Your task to perform on an android device: make emails show in primary in the gmail app Image 0: 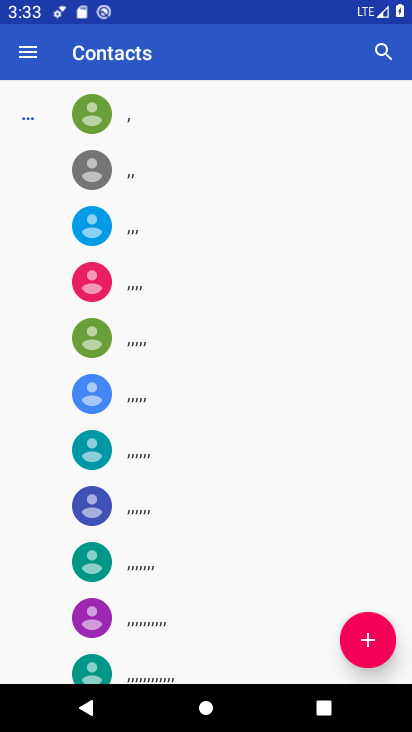
Step 0: press home button
Your task to perform on an android device: make emails show in primary in the gmail app Image 1: 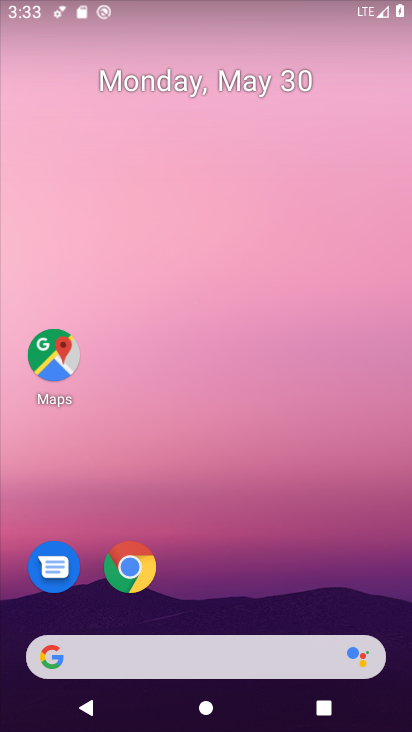
Step 1: drag from (264, 584) to (321, 3)
Your task to perform on an android device: make emails show in primary in the gmail app Image 2: 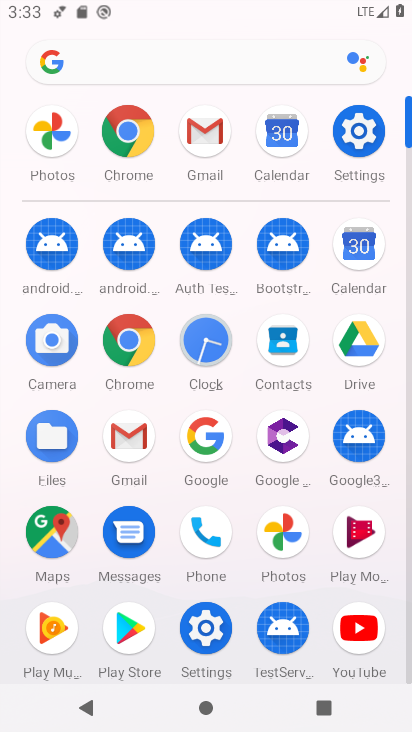
Step 2: click (125, 442)
Your task to perform on an android device: make emails show in primary in the gmail app Image 3: 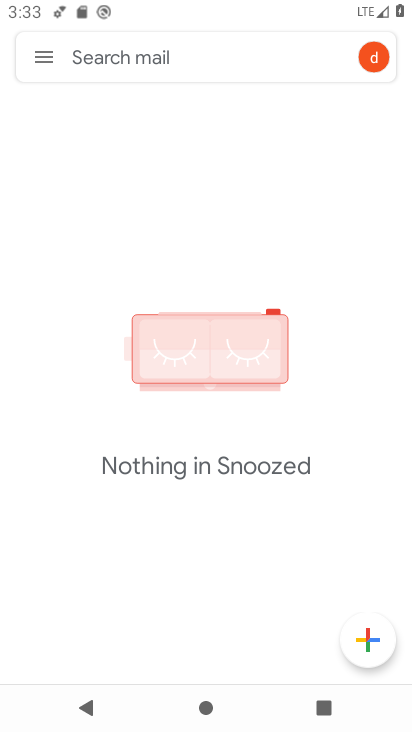
Step 3: click (40, 52)
Your task to perform on an android device: make emails show in primary in the gmail app Image 4: 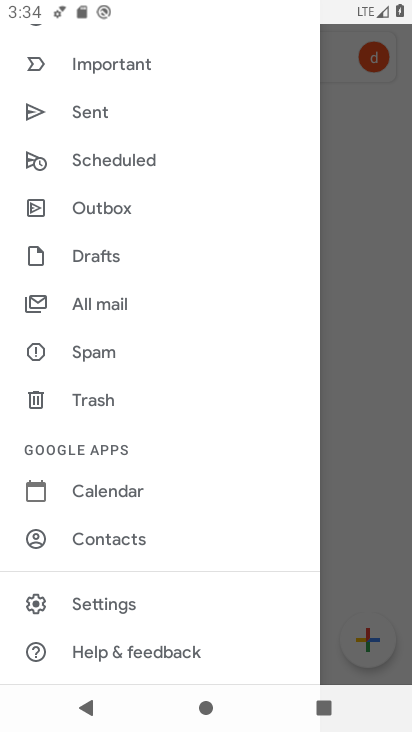
Step 4: click (94, 598)
Your task to perform on an android device: make emails show in primary in the gmail app Image 5: 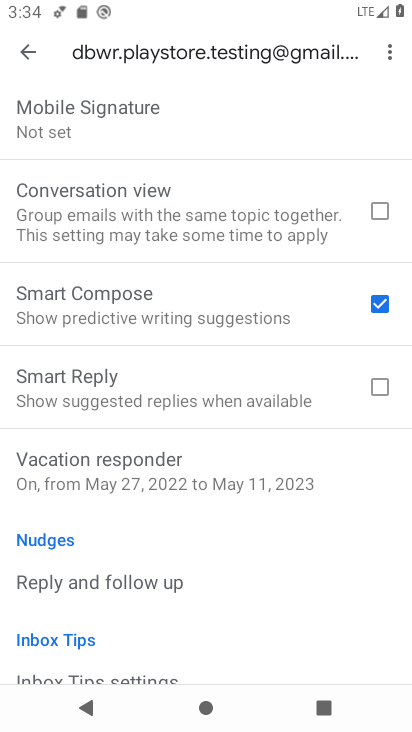
Step 5: drag from (190, 372) to (188, 702)
Your task to perform on an android device: make emails show in primary in the gmail app Image 6: 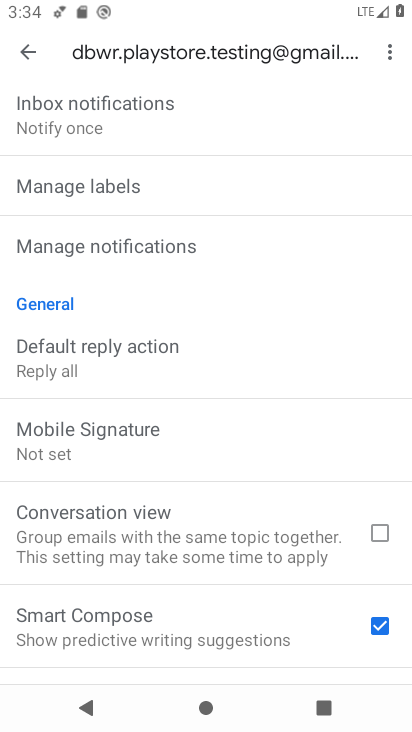
Step 6: drag from (155, 230) to (215, 627)
Your task to perform on an android device: make emails show in primary in the gmail app Image 7: 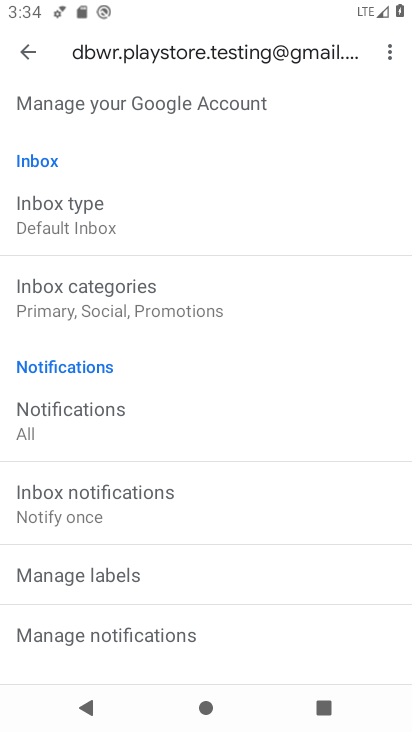
Step 7: click (110, 214)
Your task to perform on an android device: make emails show in primary in the gmail app Image 8: 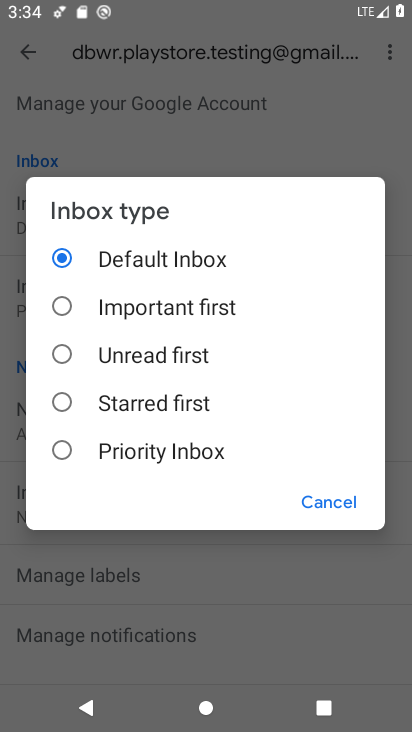
Step 8: click (114, 250)
Your task to perform on an android device: make emails show in primary in the gmail app Image 9: 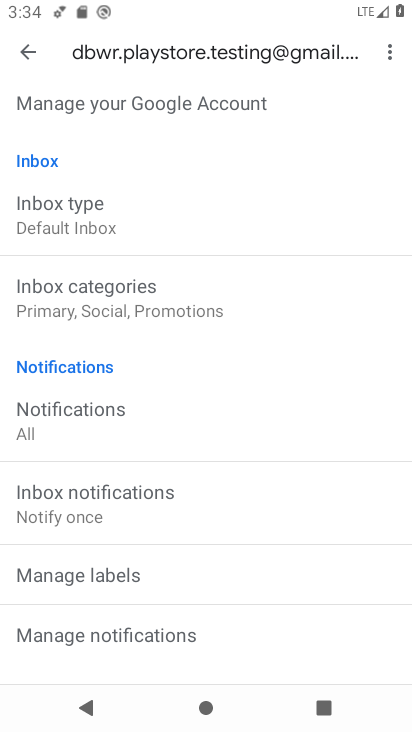
Step 9: task complete